Your task to perform on an android device: What's the weather today? Image 0: 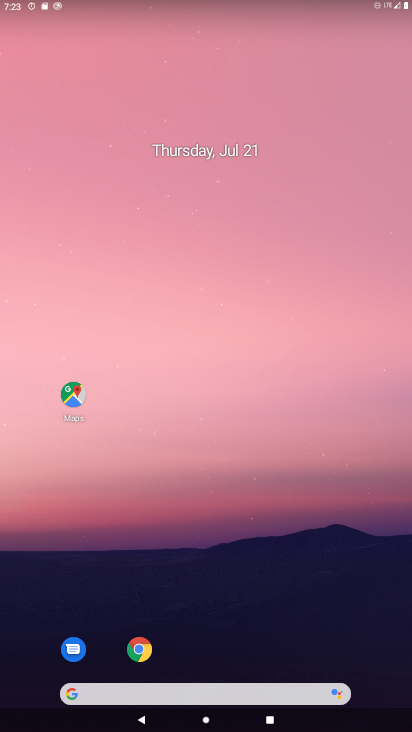
Step 0: drag from (359, 613) to (233, 12)
Your task to perform on an android device: What's the weather today? Image 1: 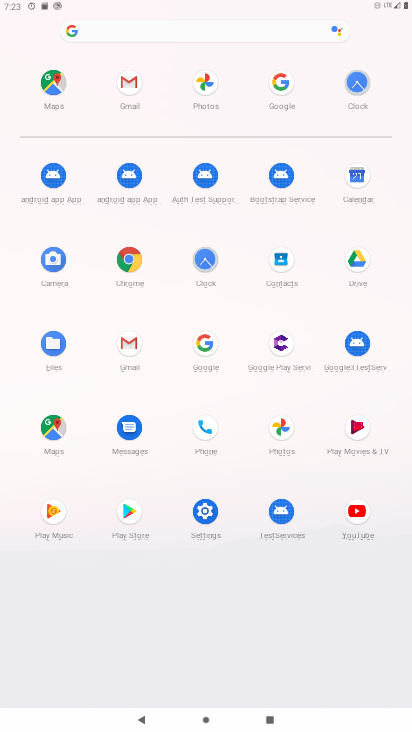
Step 1: click (188, 337)
Your task to perform on an android device: What's the weather today? Image 2: 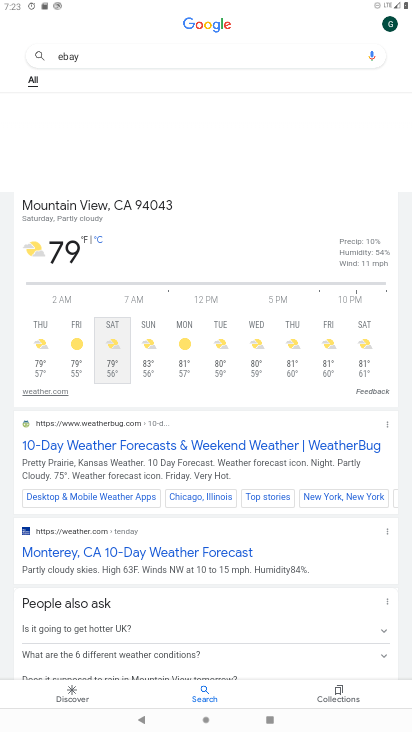
Step 2: press back button
Your task to perform on an android device: What's the weather today? Image 3: 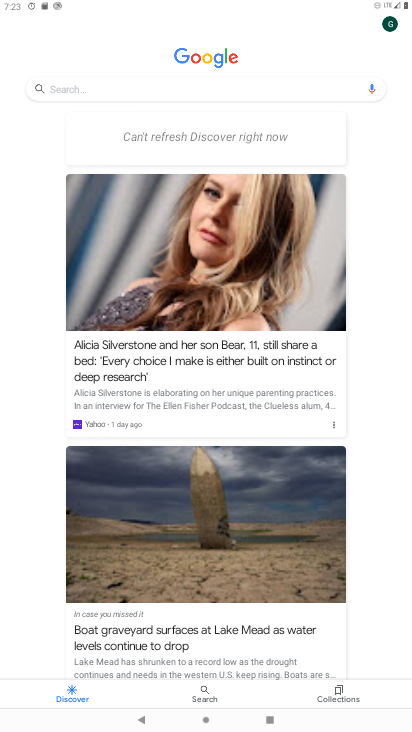
Step 3: click (78, 84)
Your task to perform on an android device: What's the weather today? Image 4: 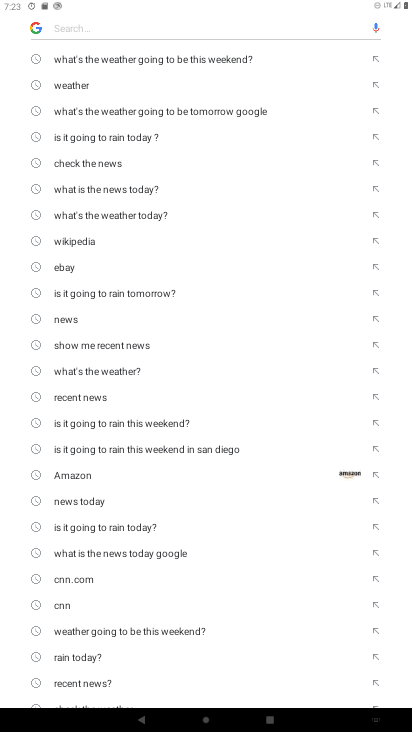
Step 4: click (139, 221)
Your task to perform on an android device: What's the weather today? Image 5: 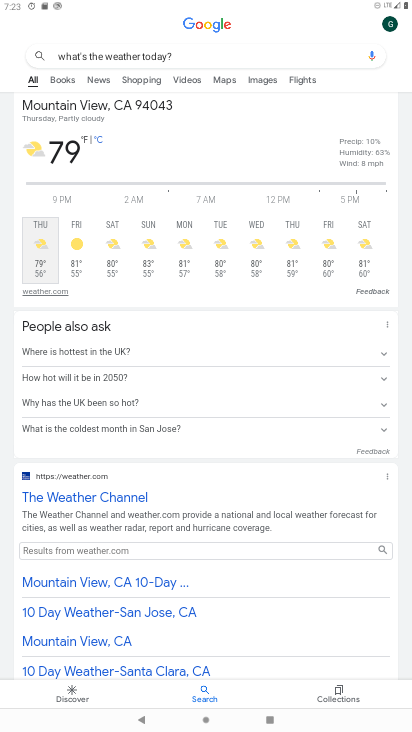
Step 5: task complete